Your task to perform on an android device: set the stopwatch Image 0: 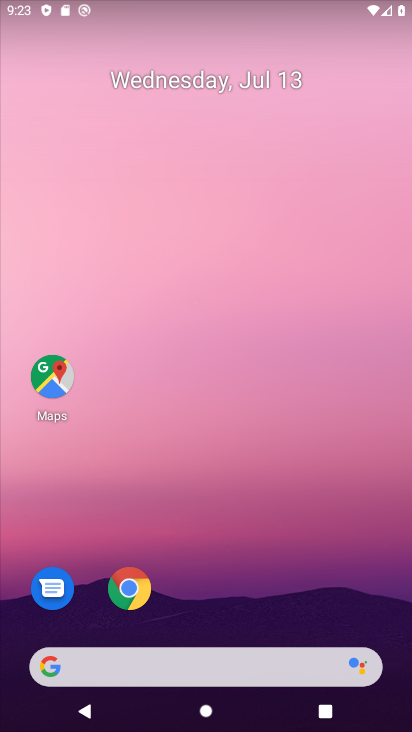
Step 0: drag from (219, 557) to (200, 109)
Your task to perform on an android device: set the stopwatch Image 1: 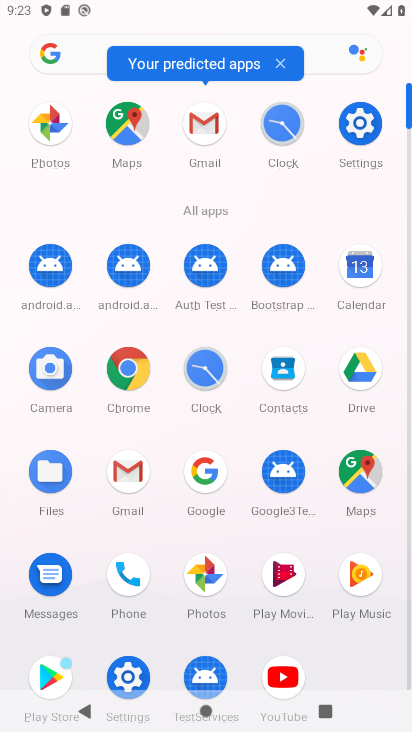
Step 1: click (282, 129)
Your task to perform on an android device: set the stopwatch Image 2: 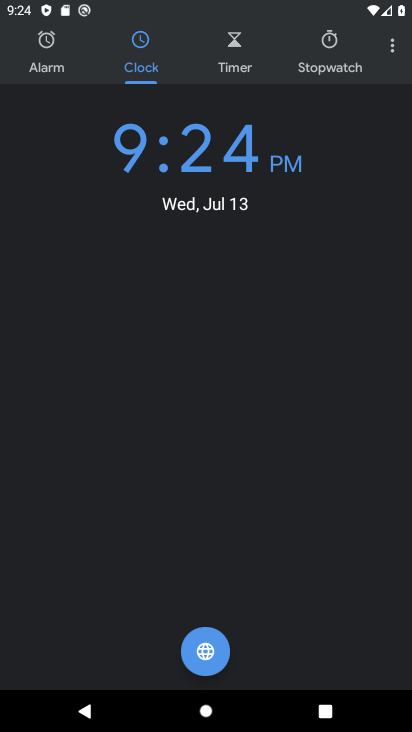
Step 2: click (328, 57)
Your task to perform on an android device: set the stopwatch Image 3: 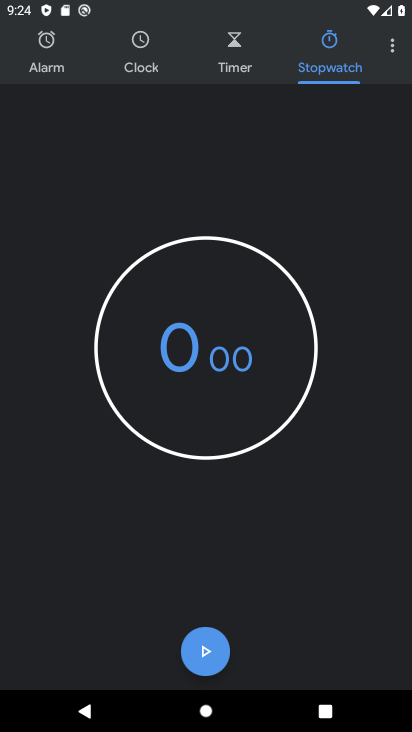
Step 3: click (206, 642)
Your task to perform on an android device: set the stopwatch Image 4: 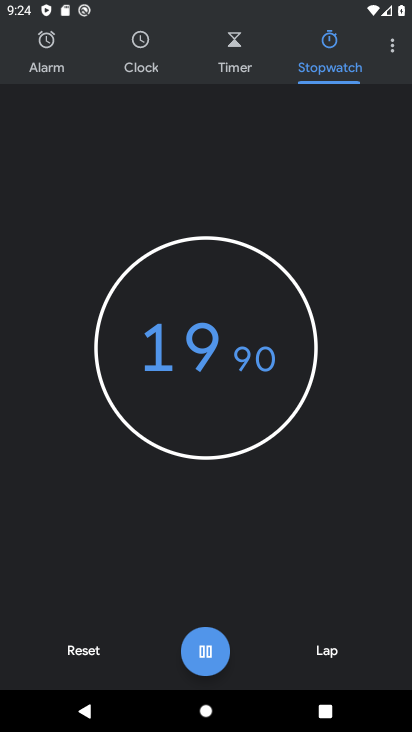
Step 4: task complete